Your task to perform on an android device: find snoozed emails in the gmail app Image 0: 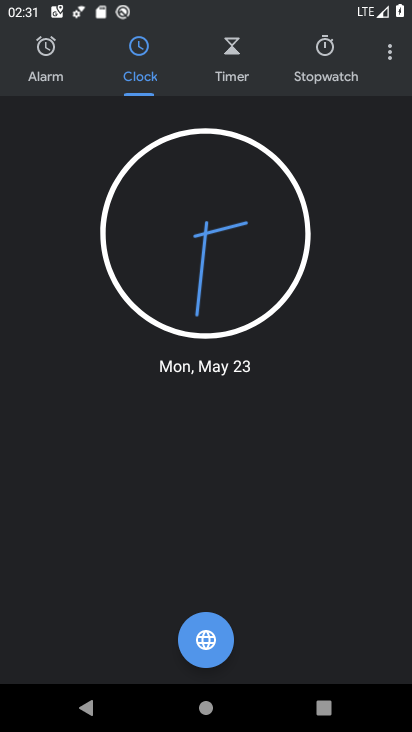
Step 0: press home button
Your task to perform on an android device: find snoozed emails in the gmail app Image 1: 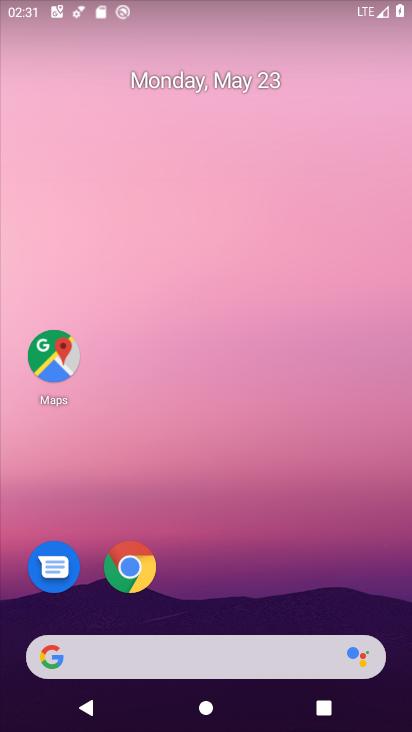
Step 1: drag from (243, 613) to (240, 233)
Your task to perform on an android device: find snoozed emails in the gmail app Image 2: 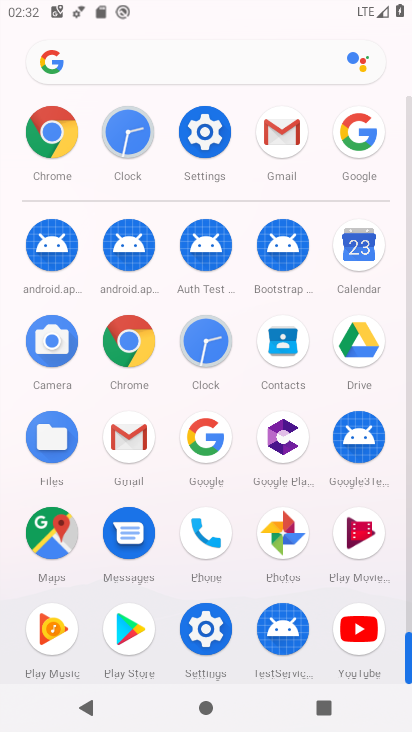
Step 2: click (144, 453)
Your task to perform on an android device: find snoozed emails in the gmail app Image 3: 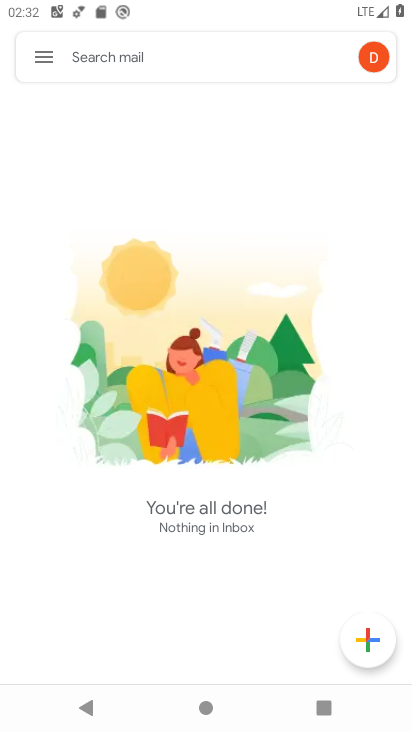
Step 3: click (43, 67)
Your task to perform on an android device: find snoozed emails in the gmail app Image 4: 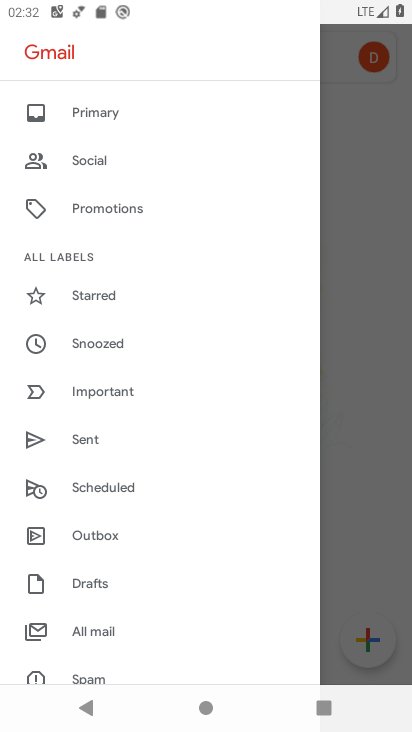
Step 4: drag from (113, 635) to (164, 504)
Your task to perform on an android device: find snoozed emails in the gmail app Image 5: 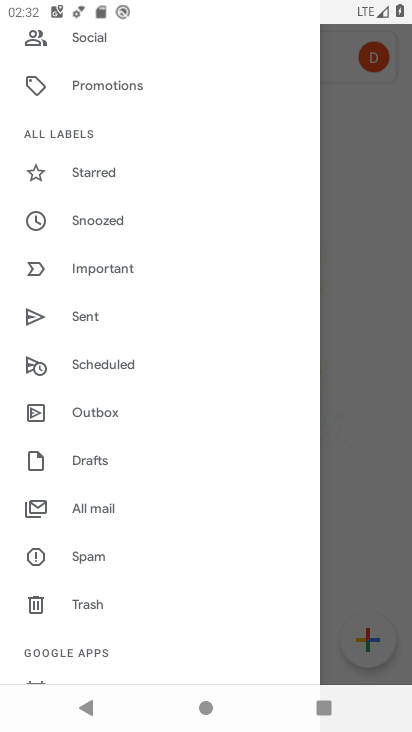
Step 5: drag from (176, 341) to (193, 612)
Your task to perform on an android device: find snoozed emails in the gmail app Image 6: 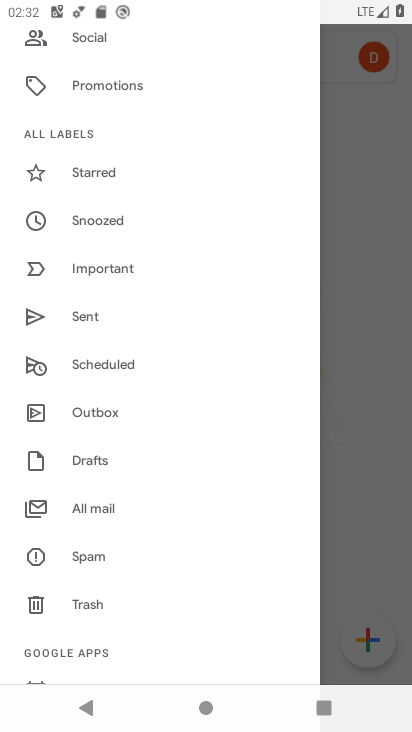
Step 6: click (99, 218)
Your task to perform on an android device: find snoozed emails in the gmail app Image 7: 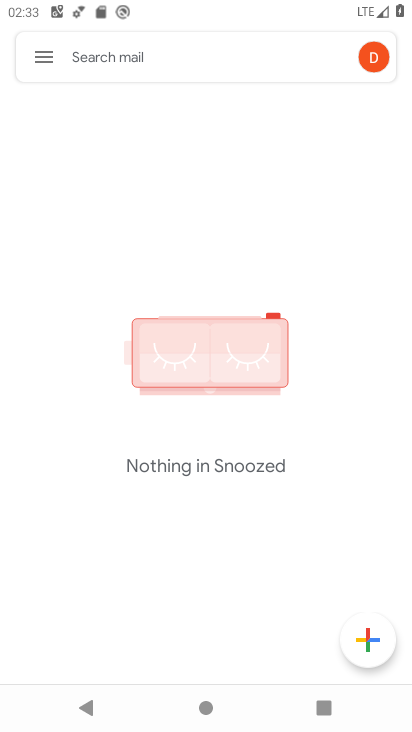
Step 7: task complete